Your task to perform on an android device: Open notification settings Image 0: 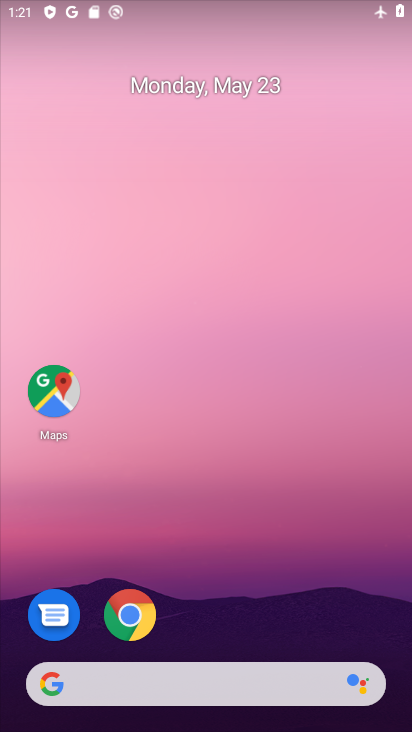
Step 0: drag from (209, 644) to (160, 84)
Your task to perform on an android device: Open notification settings Image 1: 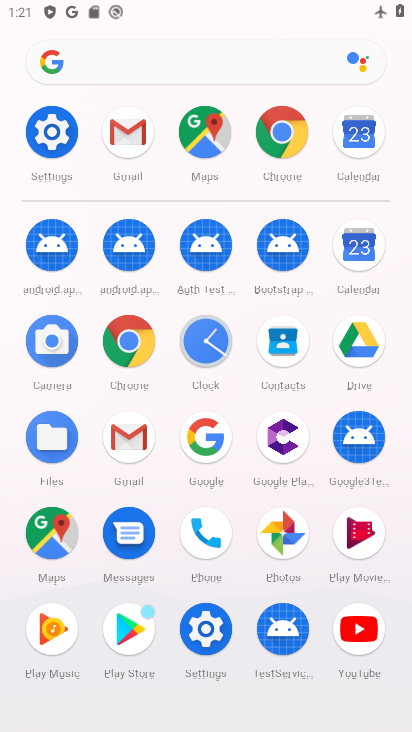
Step 1: click (61, 137)
Your task to perform on an android device: Open notification settings Image 2: 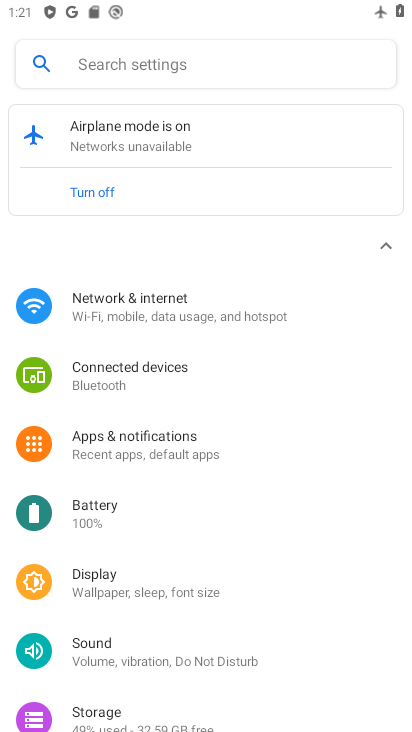
Step 2: click (111, 300)
Your task to perform on an android device: Open notification settings Image 3: 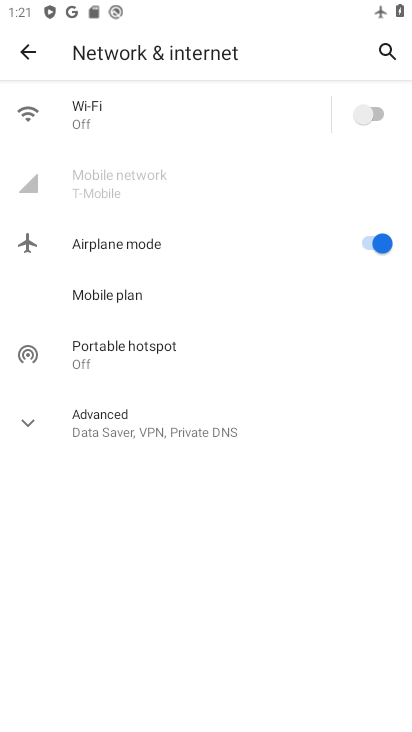
Step 3: click (24, 61)
Your task to perform on an android device: Open notification settings Image 4: 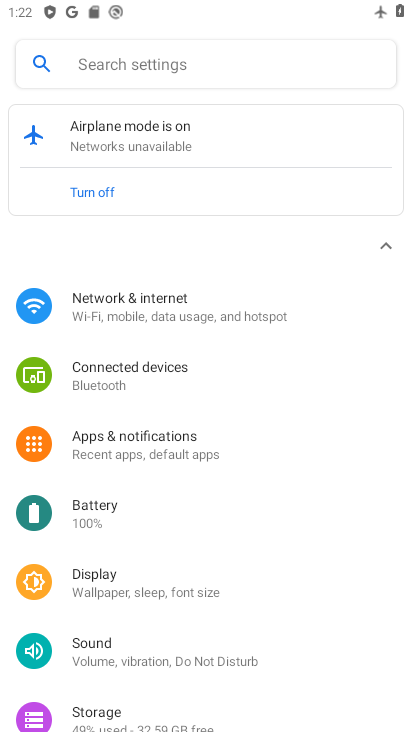
Step 4: click (184, 451)
Your task to perform on an android device: Open notification settings Image 5: 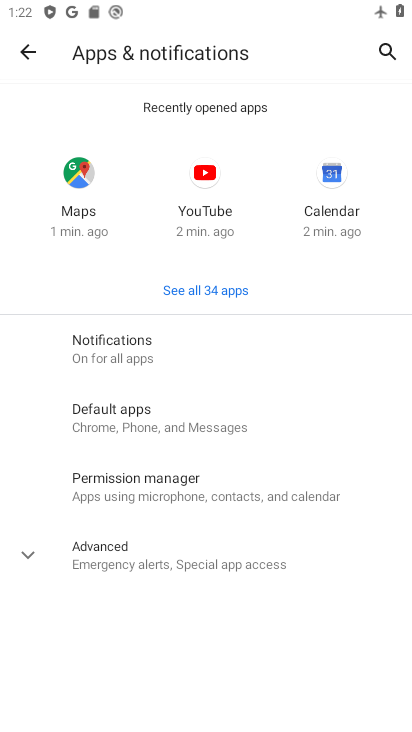
Step 5: task complete